Your task to perform on an android device: Open eBay Image 0: 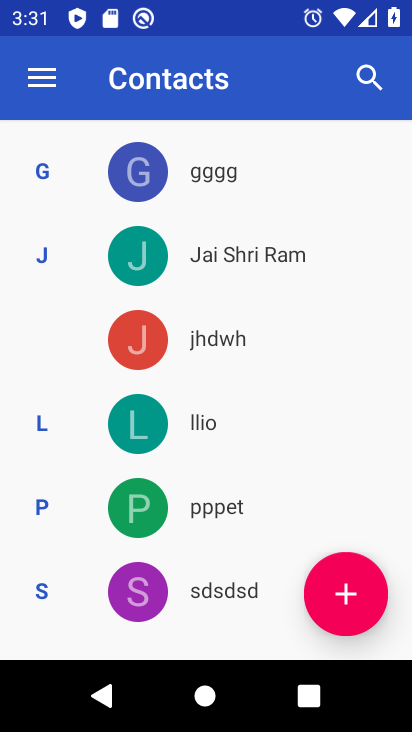
Step 0: press home button
Your task to perform on an android device: Open eBay Image 1: 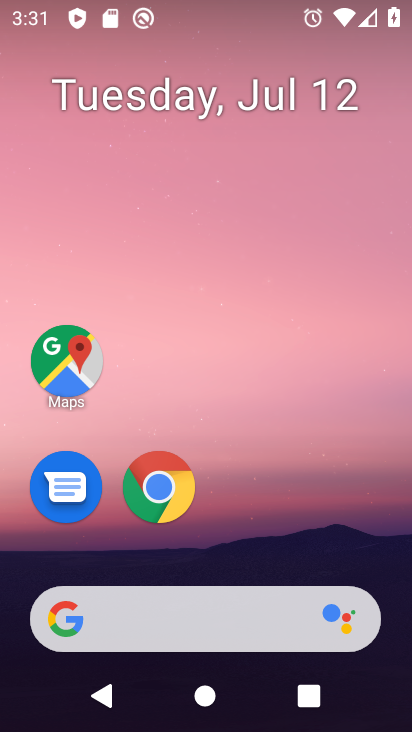
Step 1: click (150, 495)
Your task to perform on an android device: Open eBay Image 2: 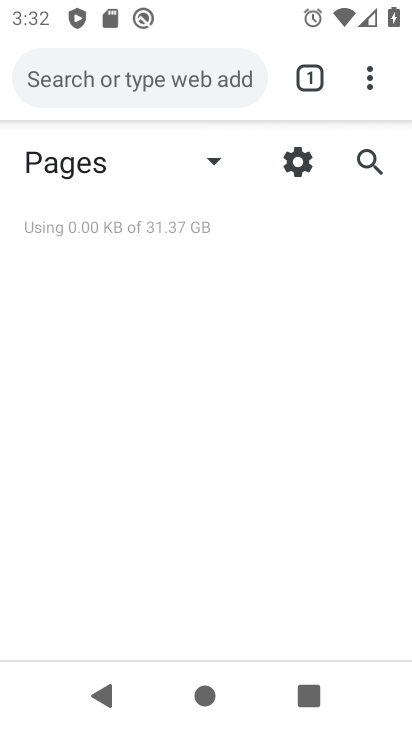
Step 2: press back button
Your task to perform on an android device: Open eBay Image 3: 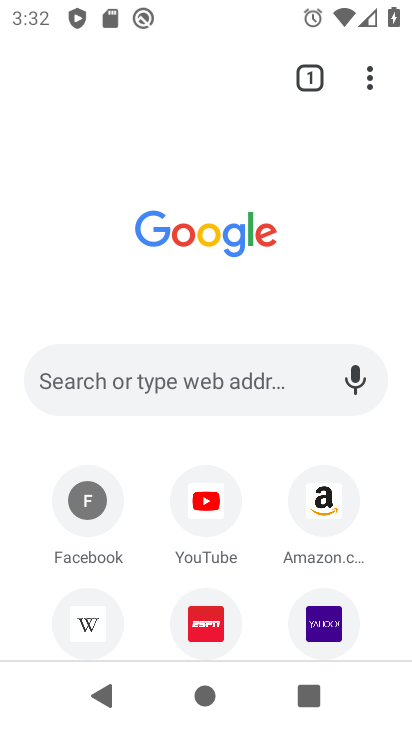
Step 3: drag from (201, 593) to (150, 230)
Your task to perform on an android device: Open eBay Image 4: 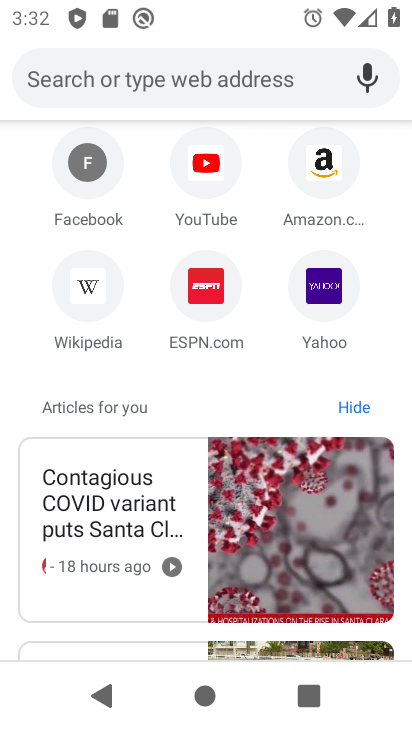
Step 4: click (97, 86)
Your task to perform on an android device: Open eBay Image 5: 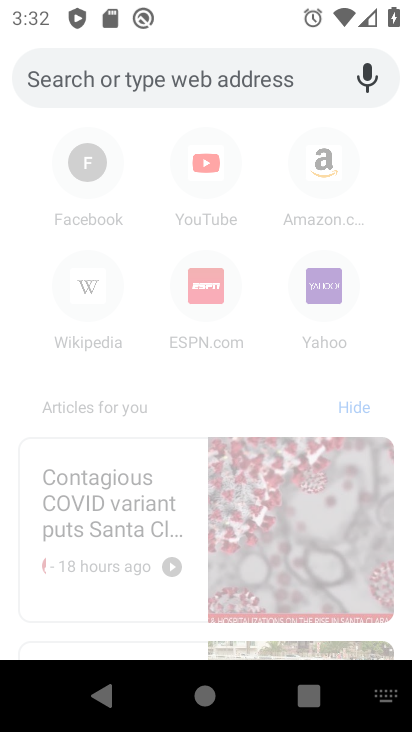
Step 5: type "ebay"
Your task to perform on an android device: Open eBay Image 6: 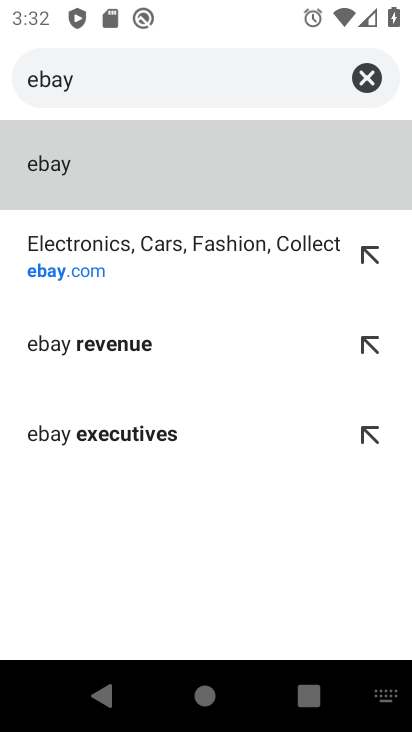
Step 6: click (102, 253)
Your task to perform on an android device: Open eBay Image 7: 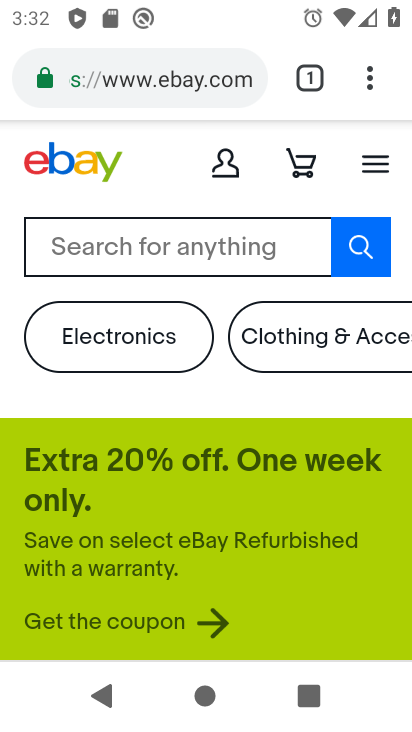
Step 7: task complete